Your task to perform on an android device: turn on translation in the chrome app Image 0: 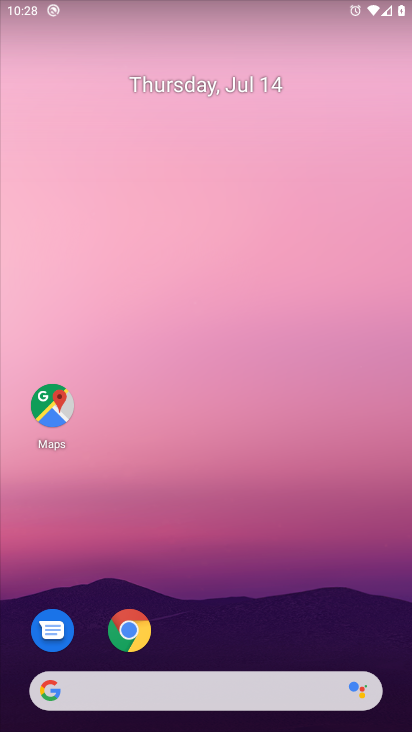
Step 0: click (123, 654)
Your task to perform on an android device: turn on translation in the chrome app Image 1: 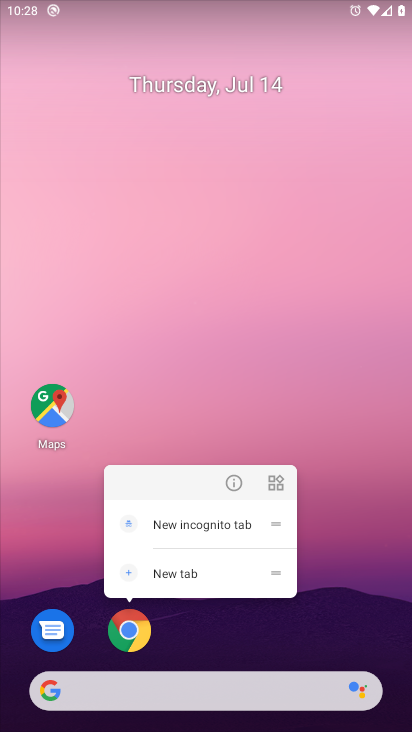
Step 1: click (132, 633)
Your task to perform on an android device: turn on translation in the chrome app Image 2: 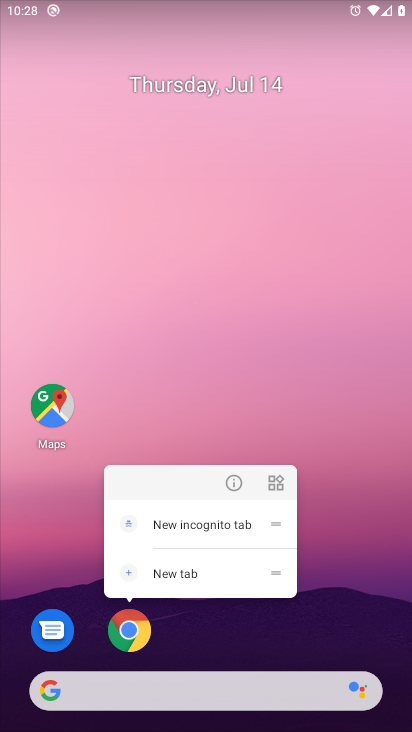
Step 2: click (132, 618)
Your task to perform on an android device: turn on translation in the chrome app Image 3: 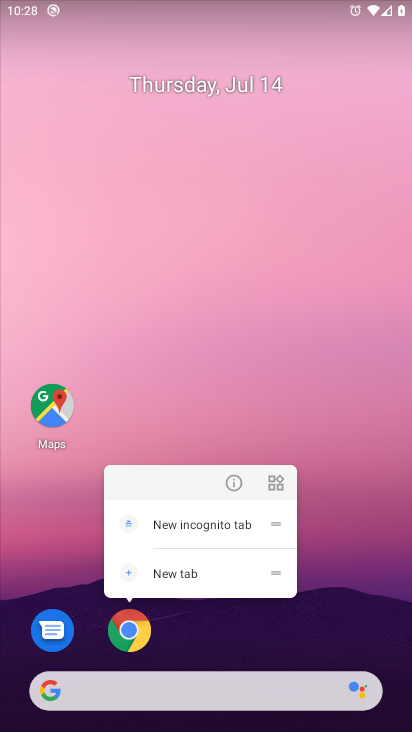
Step 3: click (132, 666)
Your task to perform on an android device: turn on translation in the chrome app Image 4: 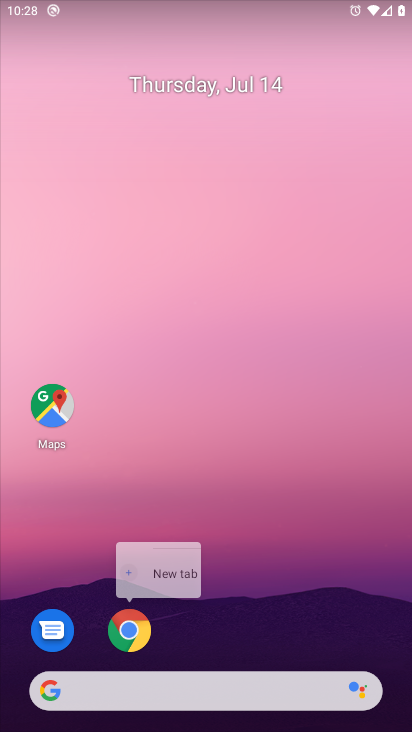
Step 4: click (145, 620)
Your task to perform on an android device: turn on translation in the chrome app Image 5: 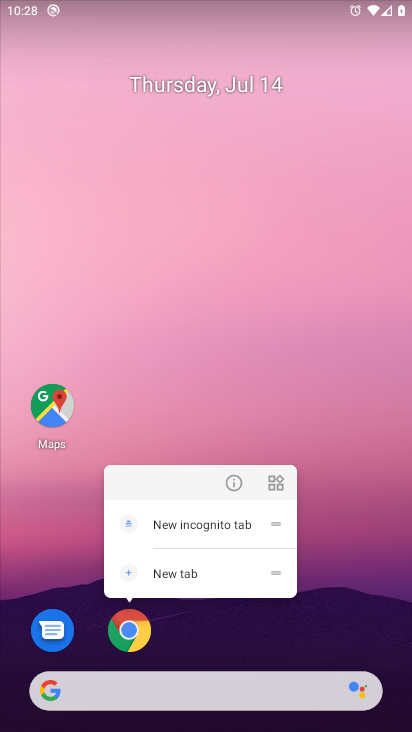
Step 5: click (117, 627)
Your task to perform on an android device: turn on translation in the chrome app Image 6: 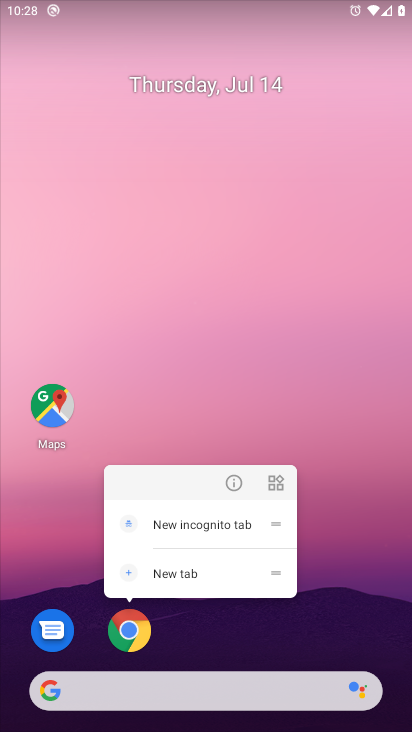
Step 6: task complete